Your task to perform on an android device: turn on data saver in the chrome app Image 0: 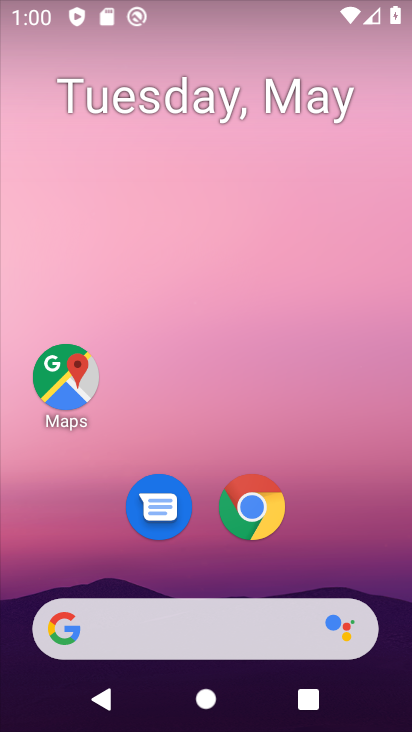
Step 0: click (274, 510)
Your task to perform on an android device: turn on data saver in the chrome app Image 1: 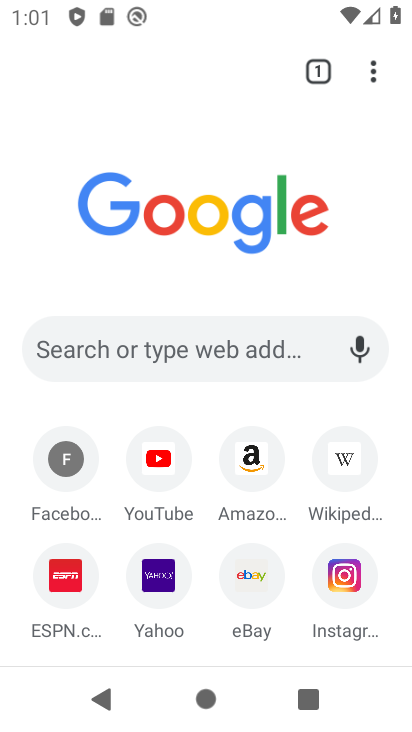
Step 1: click (378, 72)
Your task to perform on an android device: turn on data saver in the chrome app Image 2: 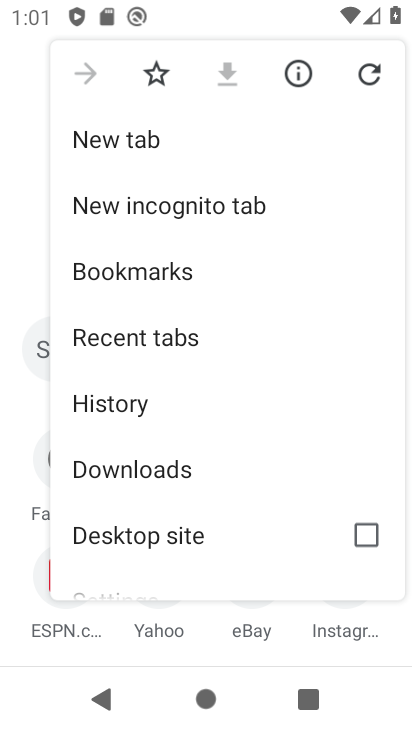
Step 2: drag from (185, 554) to (159, 175)
Your task to perform on an android device: turn on data saver in the chrome app Image 3: 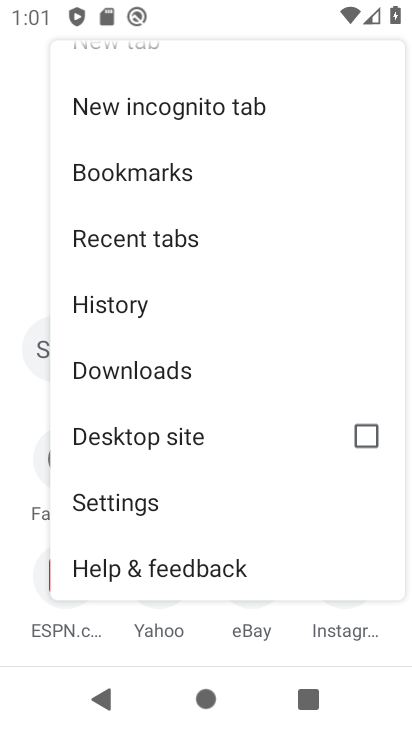
Step 3: click (181, 497)
Your task to perform on an android device: turn on data saver in the chrome app Image 4: 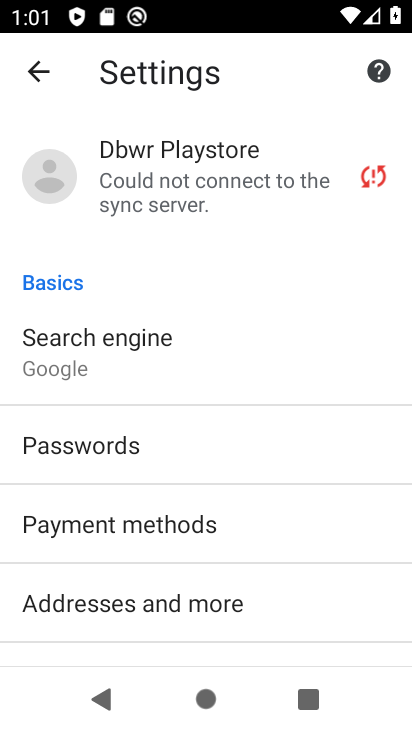
Step 4: drag from (248, 626) to (212, 147)
Your task to perform on an android device: turn on data saver in the chrome app Image 5: 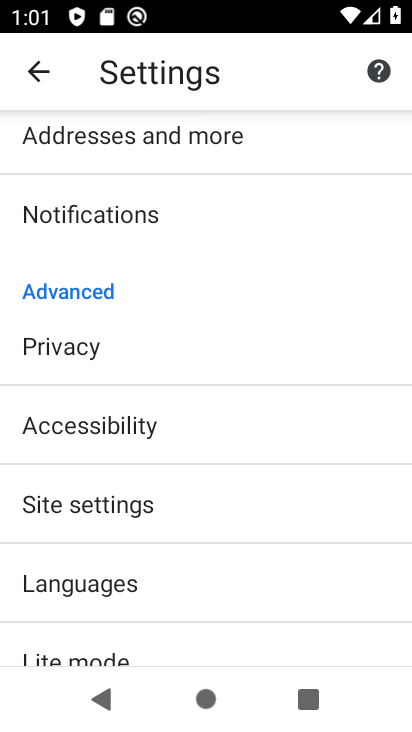
Step 5: drag from (233, 646) to (207, 420)
Your task to perform on an android device: turn on data saver in the chrome app Image 6: 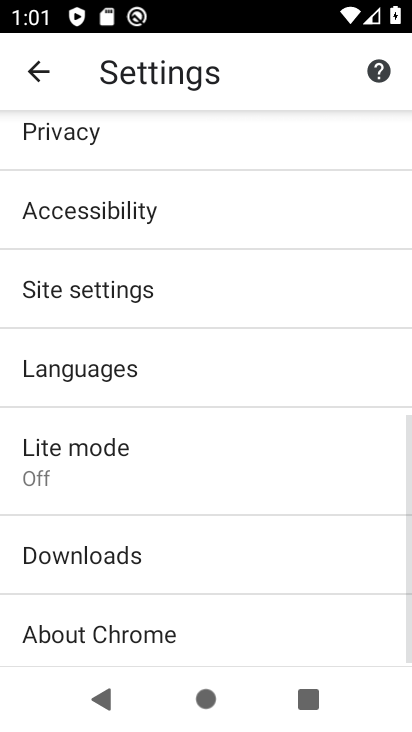
Step 6: click (207, 453)
Your task to perform on an android device: turn on data saver in the chrome app Image 7: 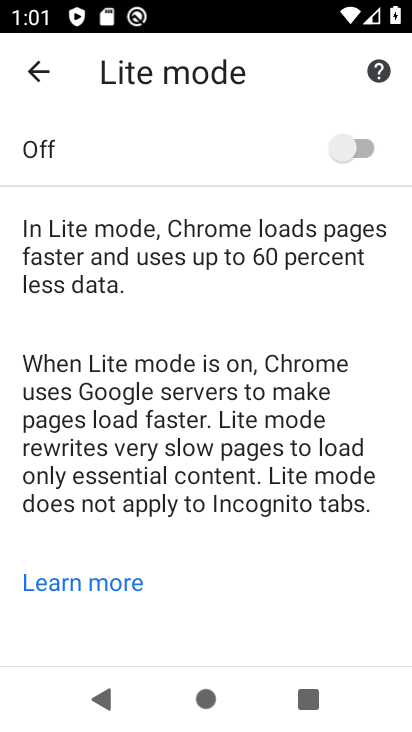
Step 7: click (342, 161)
Your task to perform on an android device: turn on data saver in the chrome app Image 8: 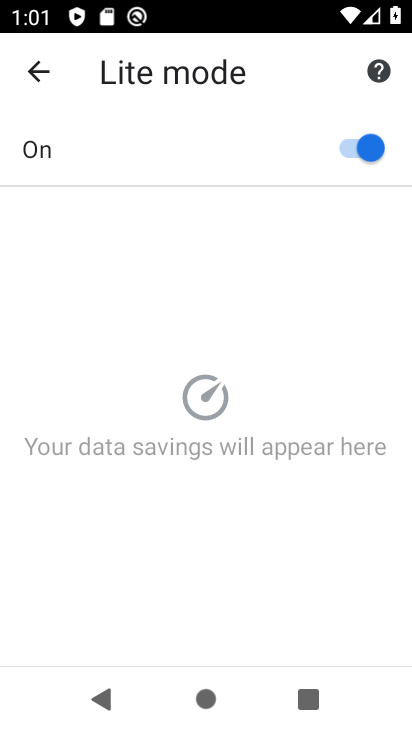
Step 8: task complete